Your task to perform on an android device: Go to battery settings Image 0: 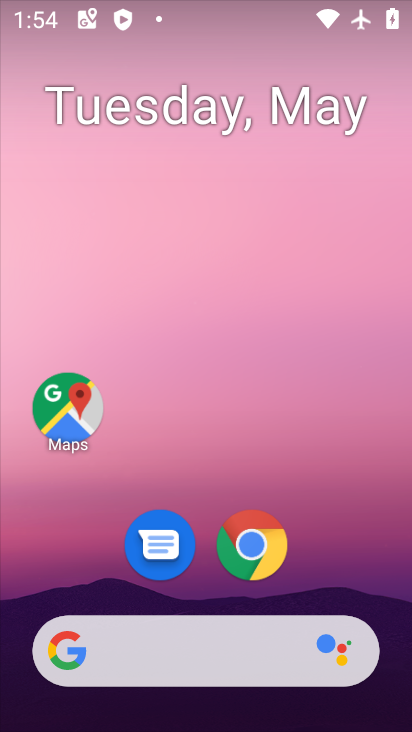
Step 0: drag from (396, 602) to (316, 68)
Your task to perform on an android device: Go to battery settings Image 1: 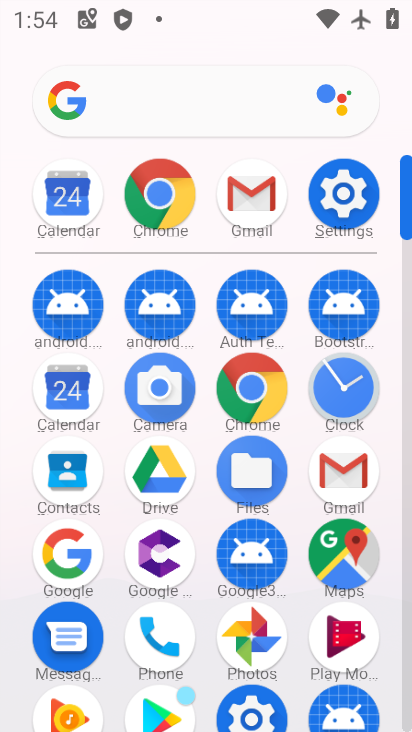
Step 1: click (407, 708)
Your task to perform on an android device: Go to battery settings Image 2: 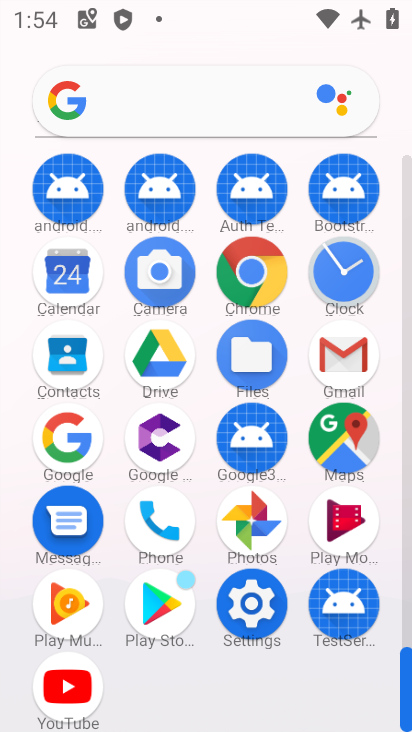
Step 2: click (250, 602)
Your task to perform on an android device: Go to battery settings Image 3: 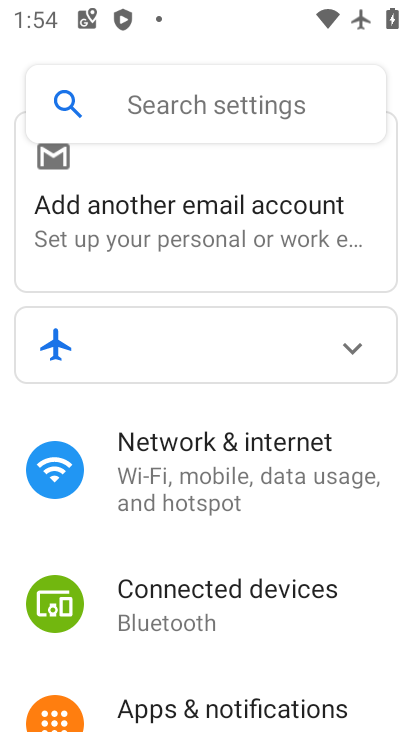
Step 3: drag from (355, 659) to (278, 156)
Your task to perform on an android device: Go to battery settings Image 4: 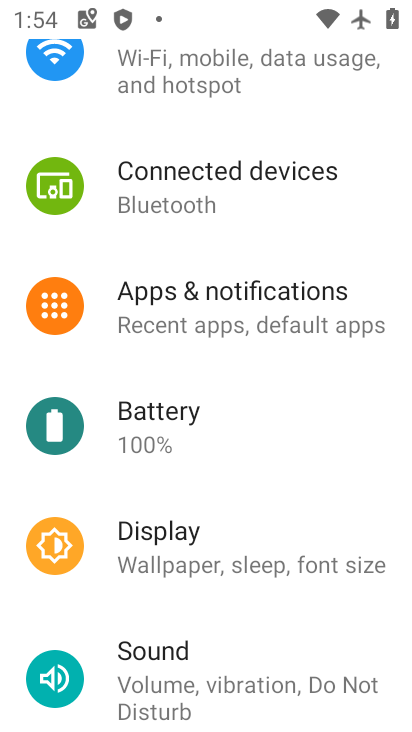
Step 4: click (128, 419)
Your task to perform on an android device: Go to battery settings Image 5: 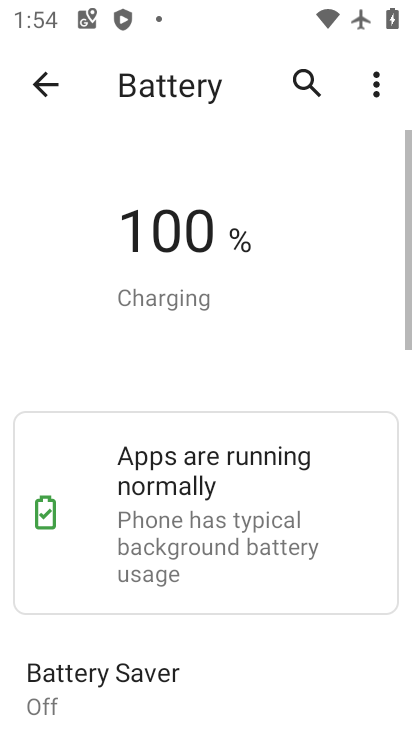
Step 5: task complete